Your task to perform on an android device: turn off location history Image 0: 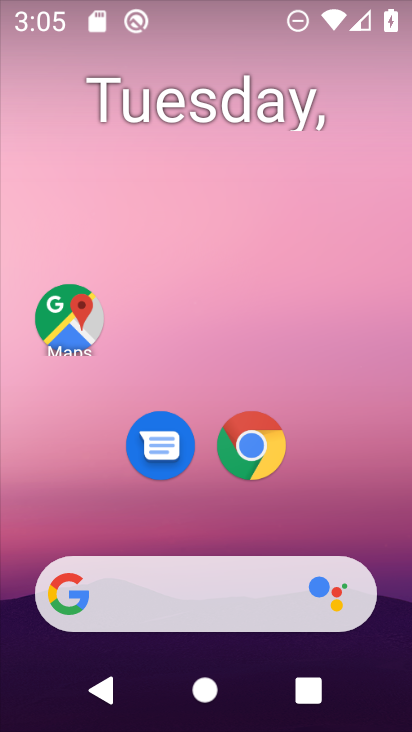
Step 0: click (67, 319)
Your task to perform on an android device: turn off location history Image 1: 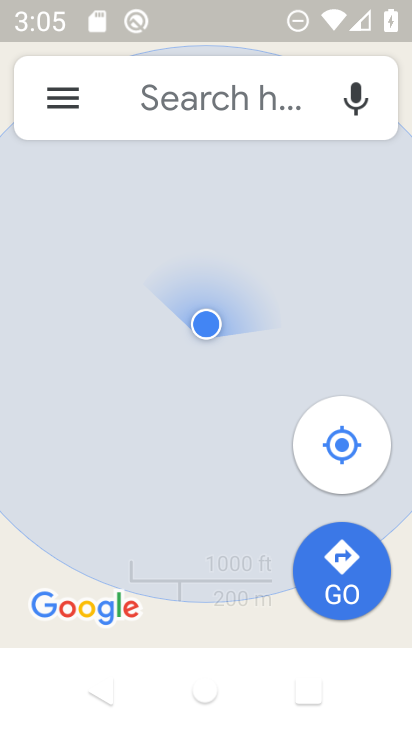
Step 1: click (68, 98)
Your task to perform on an android device: turn off location history Image 2: 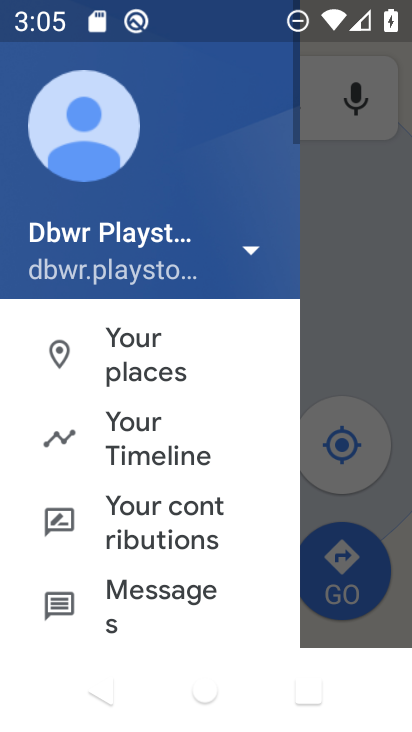
Step 2: click (117, 450)
Your task to perform on an android device: turn off location history Image 3: 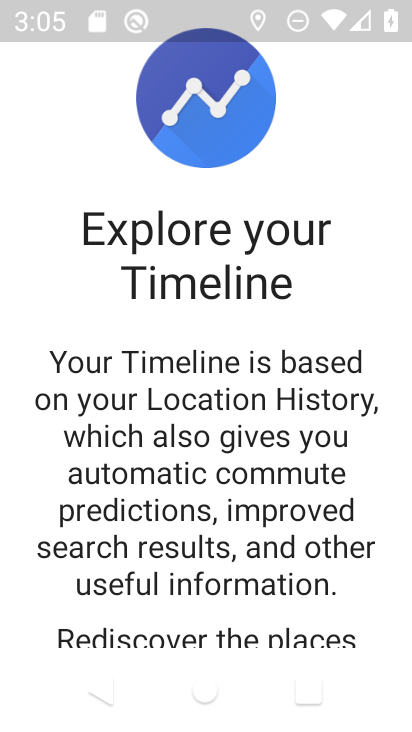
Step 3: drag from (221, 543) to (196, 142)
Your task to perform on an android device: turn off location history Image 4: 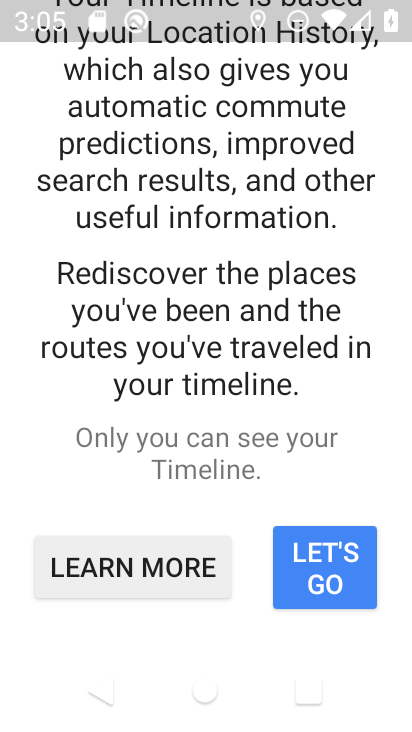
Step 4: click (301, 575)
Your task to perform on an android device: turn off location history Image 5: 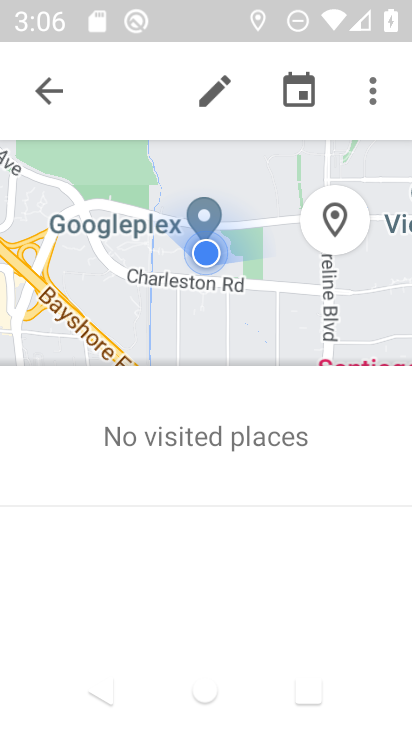
Step 5: click (371, 91)
Your task to perform on an android device: turn off location history Image 6: 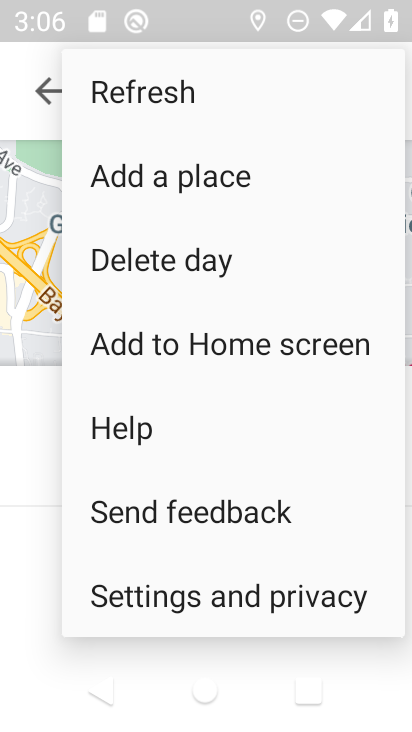
Step 6: click (182, 606)
Your task to perform on an android device: turn off location history Image 7: 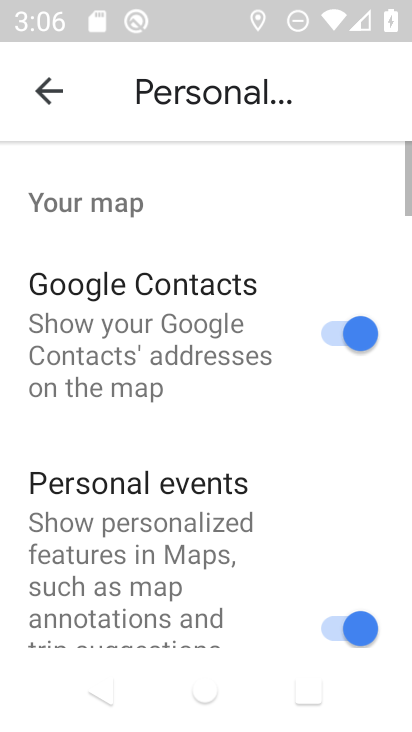
Step 7: drag from (101, 561) to (135, 107)
Your task to perform on an android device: turn off location history Image 8: 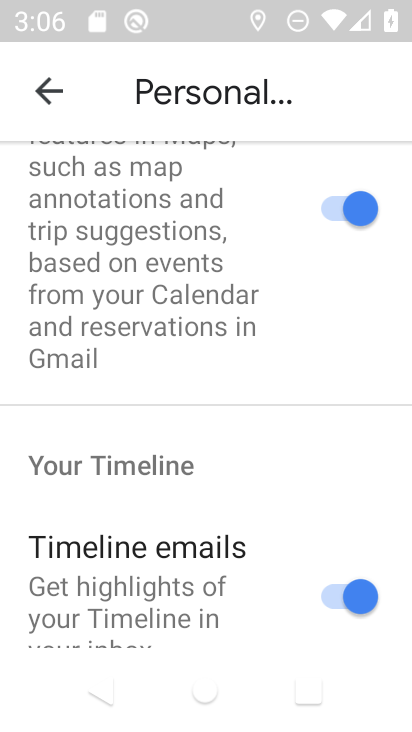
Step 8: drag from (130, 574) to (141, 99)
Your task to perform on an android device: turn off location history Image 9: 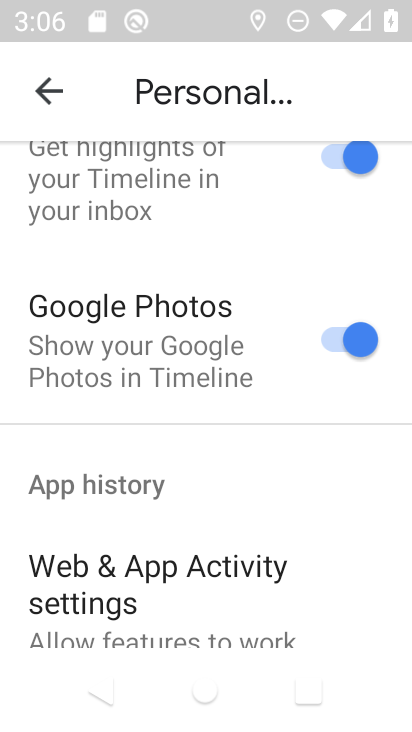
Step 9: drag from (123, 514) to (125, 177)
Your task to perform on an android device: turn off location history Image 10: 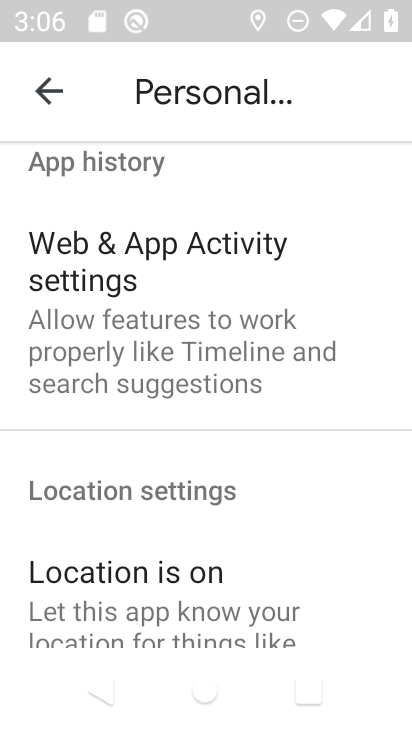
Step 10: drag from (130, 554) to (146, 176)
Your task to perform on an android device: turn off location history Image 11: 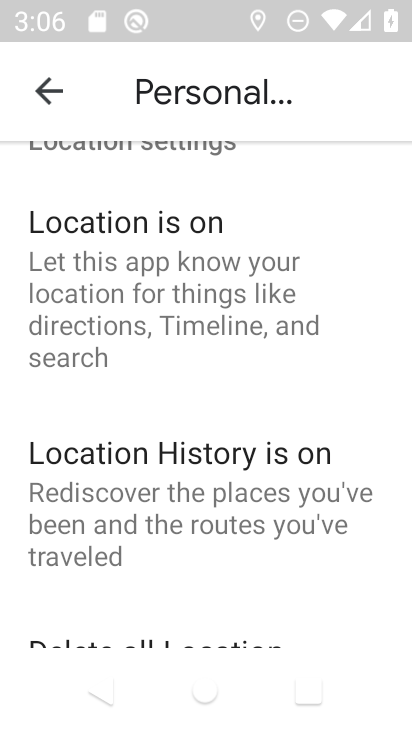
Step 11: click (126, 487)
Your task to perform on an android device: turn off location history Image 12: 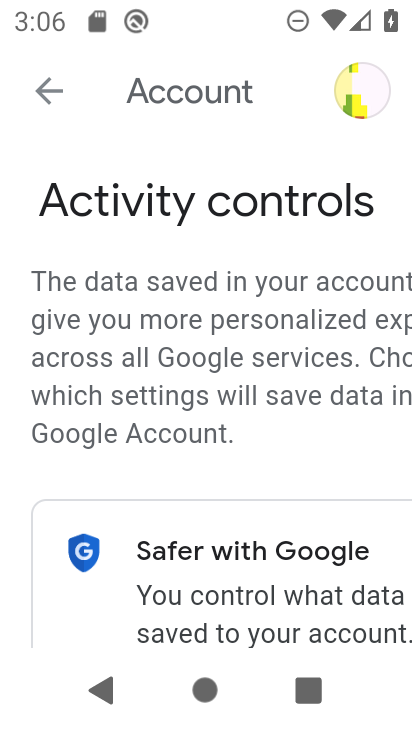
Step 12: drag from (239, 595) to (186, 72)
Your task to perform on an android device: turn off location history Image 13: 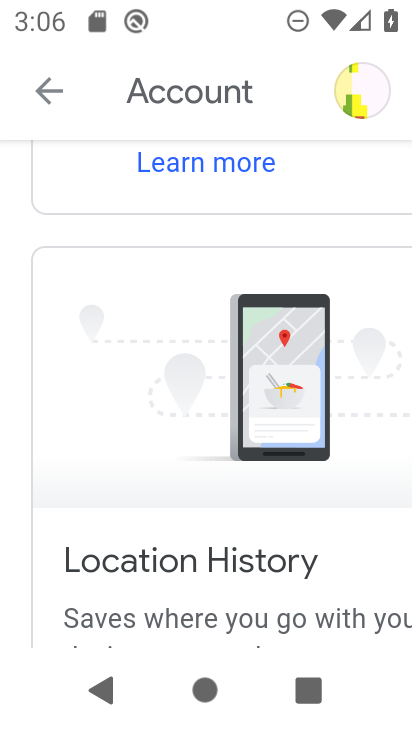
Step 13: drag from (196, 502) to (159, 73)
Your task to perform on an android device: turn off location history Image 14: 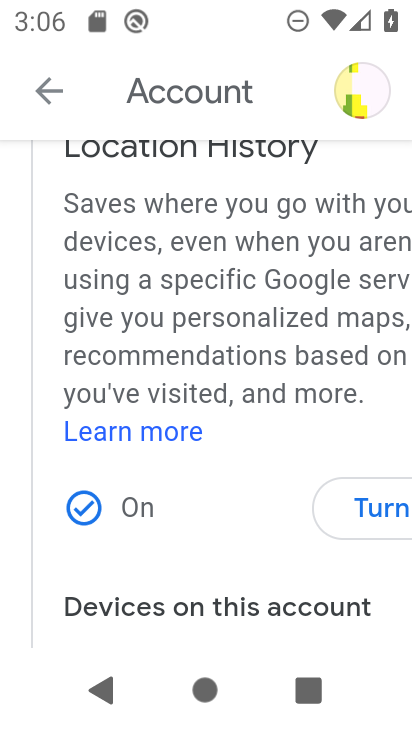
Step 14: click (393, 513)
Your task to perform on an android device: turn off location history Image 15: 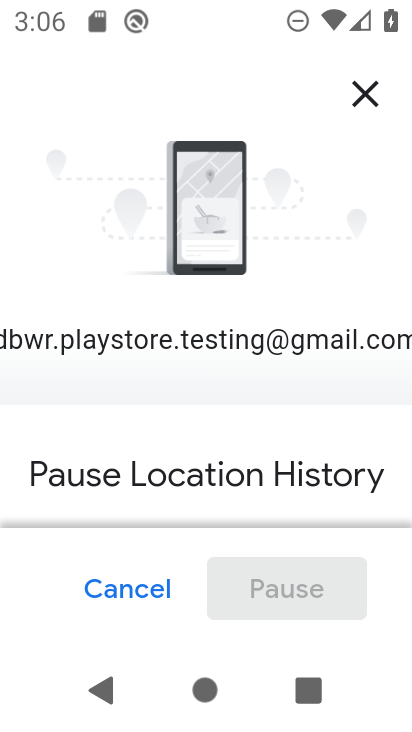
Step 15: drag from (165, 484) to (186, 75)
Your task to perform on an android device: turn off location history Image 16: 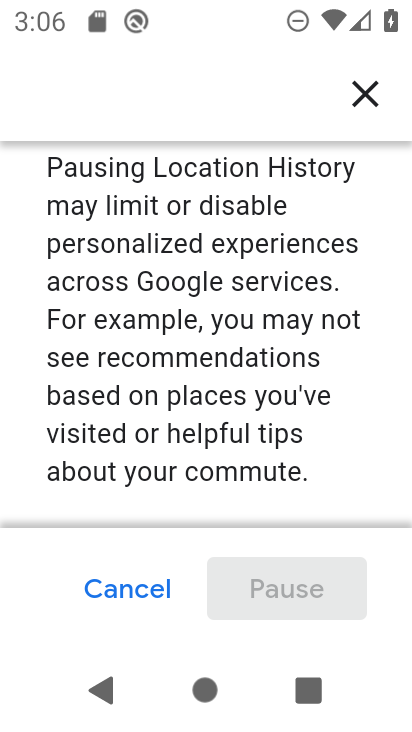
Step 16: drag from (198, 496) to (185, 85)
Your task to perform on an android device: turn off location history Image 17: 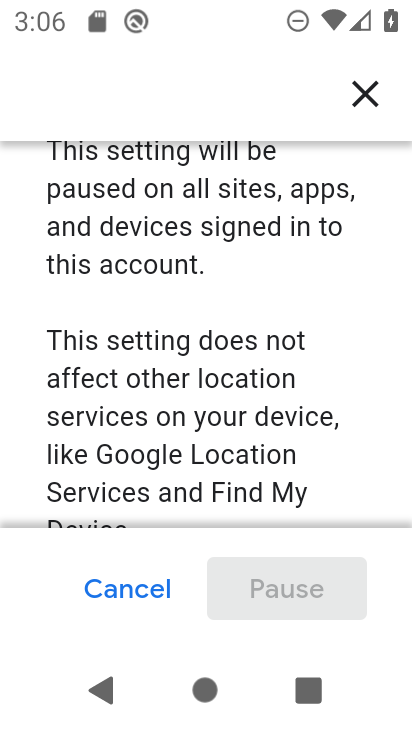
Step 17: drag from (212, 473) to (217, 32)
Your task to perform on an android device: turn off location history Image 18: 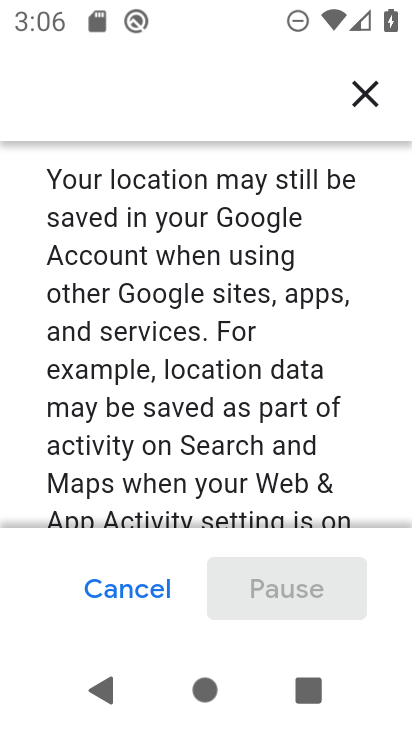
Step 18: drag from (165, 479) to (160, 66)
Your task to perform on an android device: turn off location history Image 19: 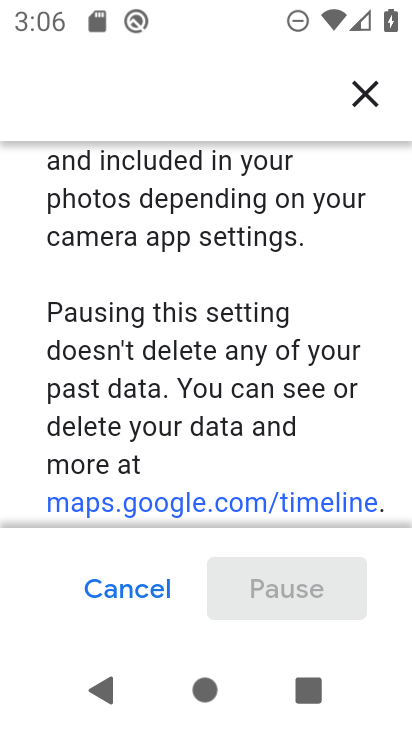
Step 19: drag from (159, 473) to (161, 95)
Your task to perform on an android device: turn off location history Image 20: 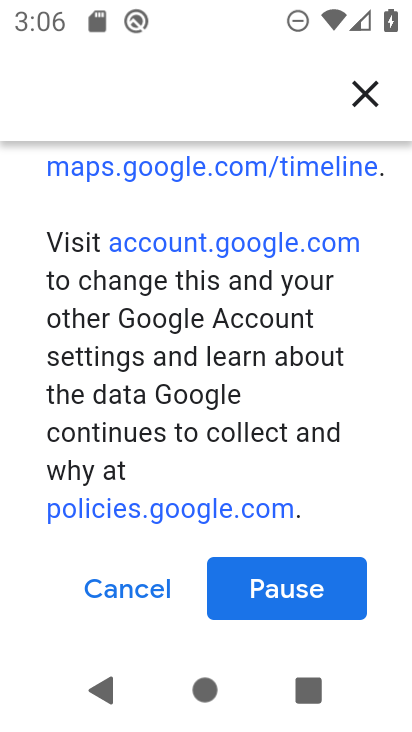
Step 20: click (265, 589)
Your task to perform on an android device: turn off location history Image 21: 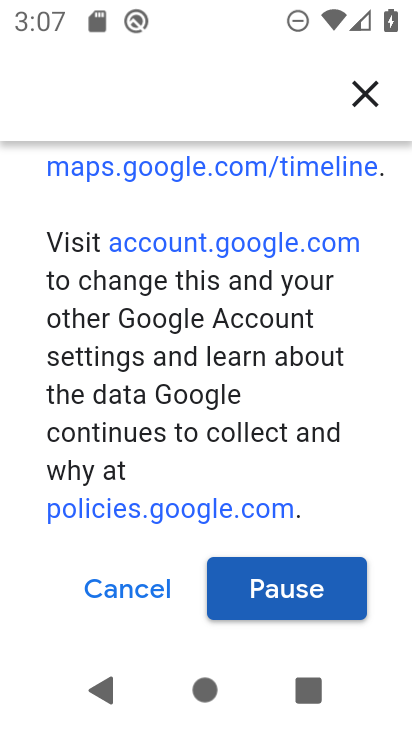
Step 21: drag from (167, 452) to (163, 311)
Your task to perform on an android device: turn off location history Image 22: 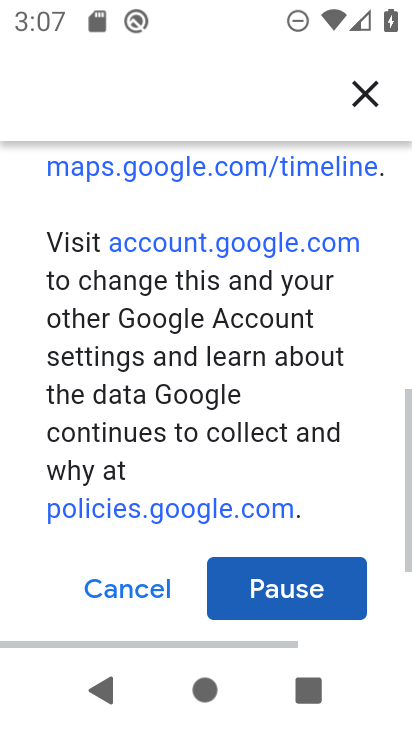
Step 22: click (271, 585)
Your task to perform on an android device: turn off location history Image 23: 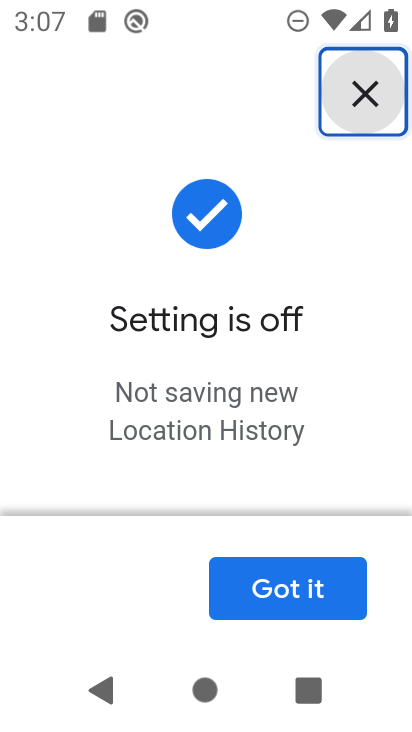
Step 23: click (256, 598)
Your task to perform on an android device: turn off location history Image 24: 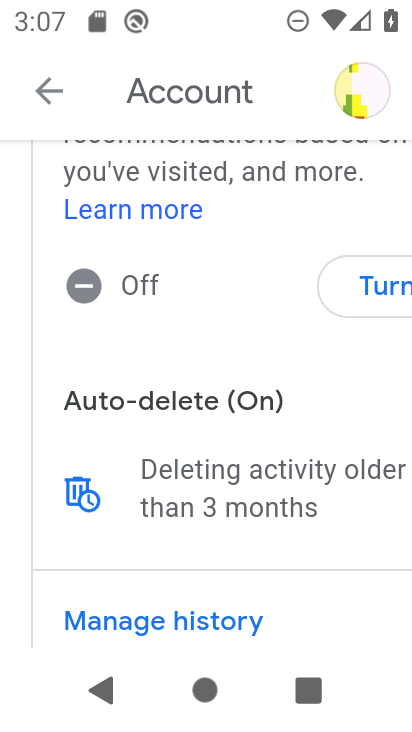
Step 24: task complete